Your task to perform on an android device: Open Android settings Image 0: 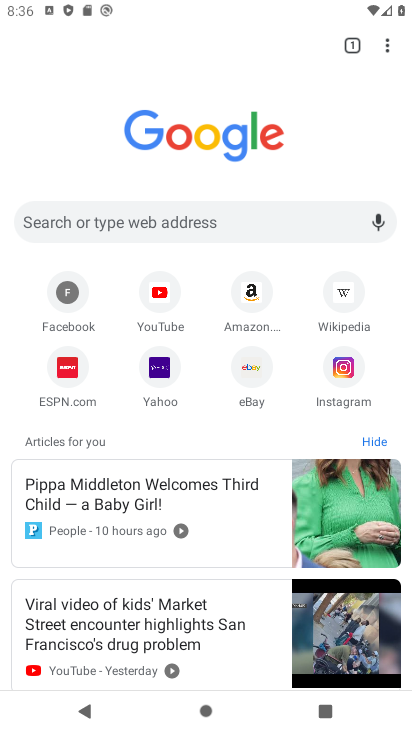
Step 0: press home button
Your task to perform on an android device: Open Android settings Image 1: 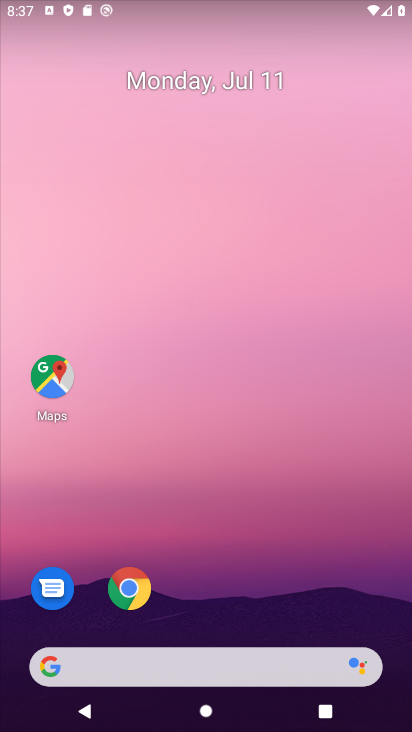
Step 1: drag from (399, 613) to (307, 5)
Your task to perform on an android device: Open Android settings Image 2: 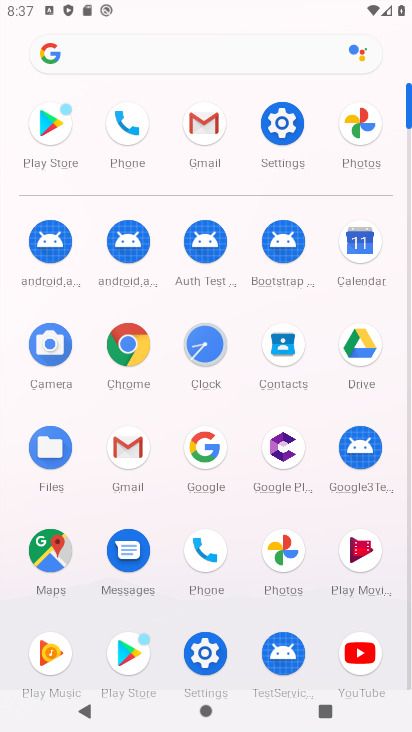
Step 2: click (282, 123)
Your task to perform on an android device: Open Android settings Image 3: 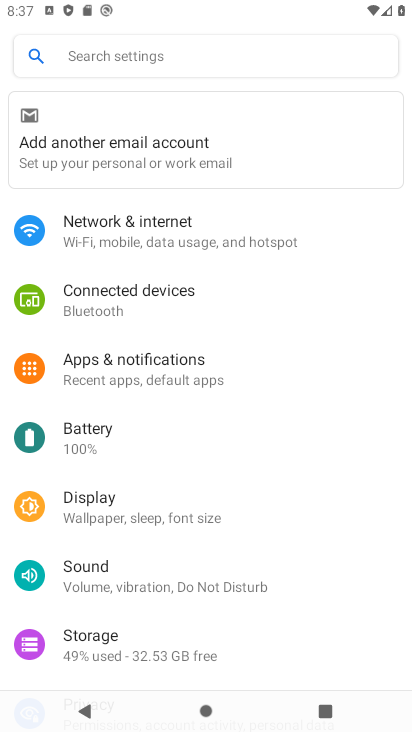
Step 3: drag from (251, 573) to (319, 126)
Your task to perform on an android device: Open Android settings Image 4: 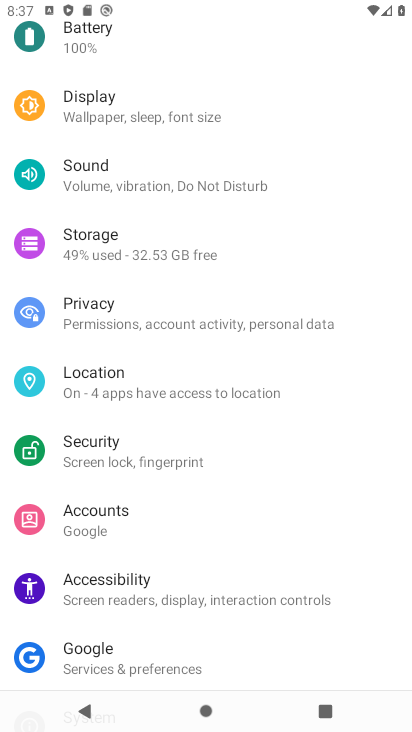
Step 4: drag from (220, 618) to (223, 233)
Your task to perform on an android device: Open Android settings Image 5: 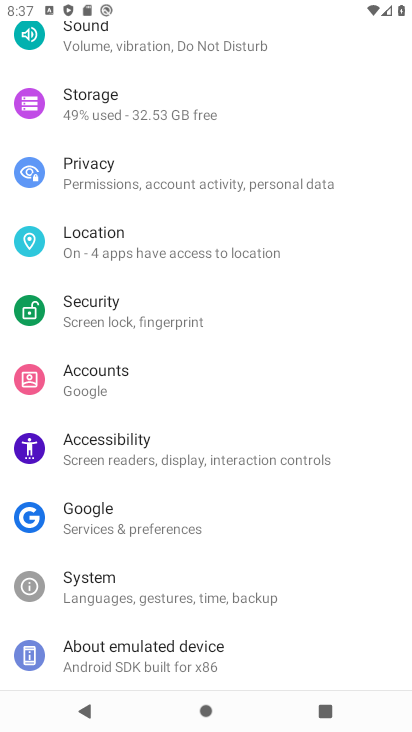
Step 5: click (188, 648)
Your task to perform on an android device: Open Android settings Image 6: 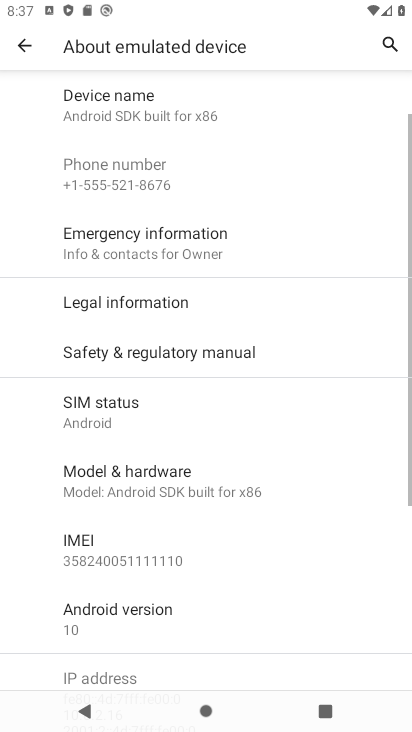
Step 6: task complete